Your task to perform on an android device: Open CNN.com Image 0: 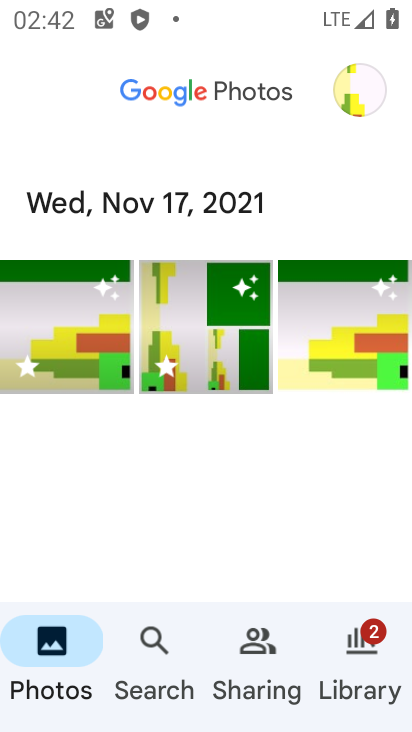
Step 0: press home button
Your task to perform on an android device: Open CNN.com Image 1: 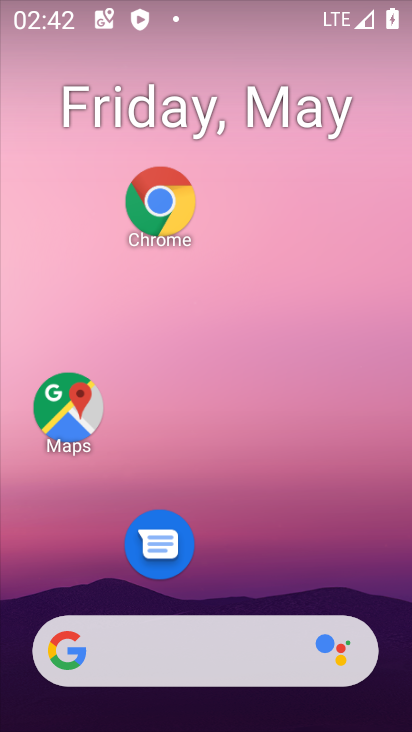
Step 1: drag from (300, 525) to (225, 158)
Your task to perform on an android device: Open CNN.com Image 2: 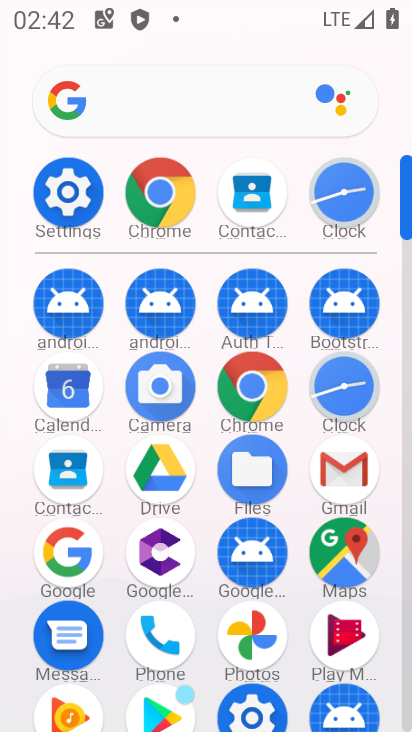
Step 2: click (248, 397)
Your task to perform on an android device: Open CNN.com Image 3: 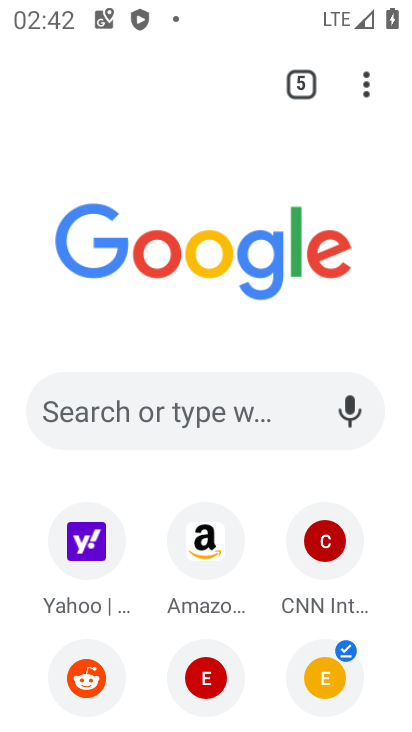
Step 3: drag from (160, 501) to (157, 381)
Your task to perform on an android device: Open CNN.com Image 4: 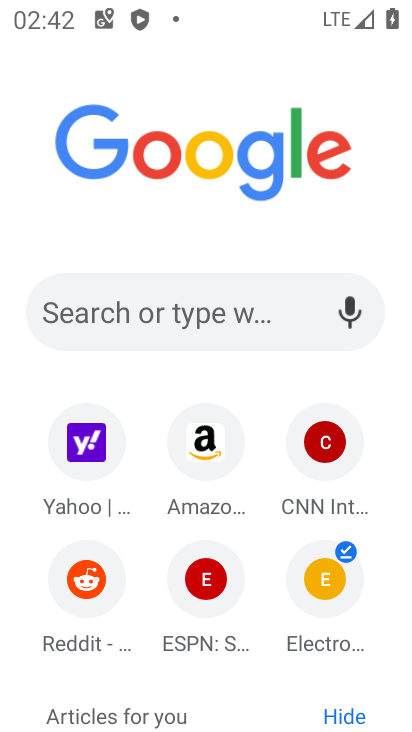
Step 4: click (178, 293)
Your task to perform on an android device: Open CNN.com Image 5: 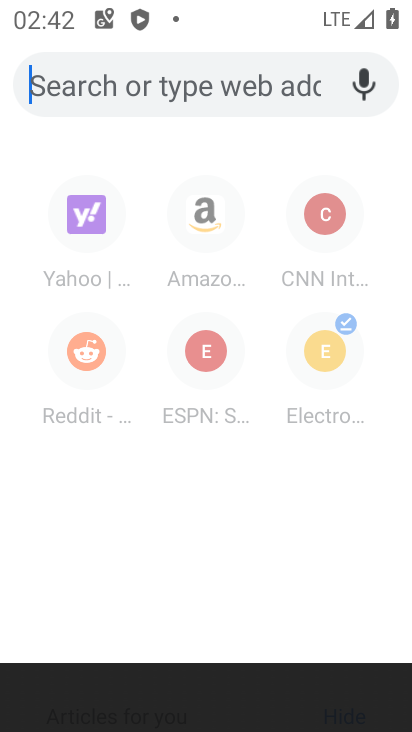
Step 5: click (136, 304)
Your task to perform on an android device: Open CNN.com Image 6: 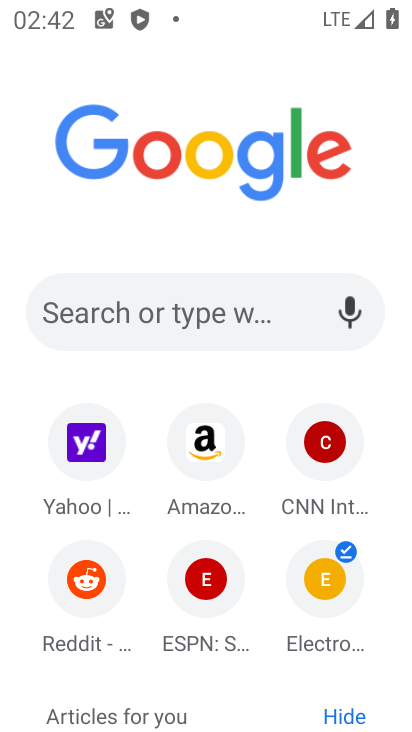
Step 6: click (184, 308)
Your task to perform on an android device: Open CNN.com Image 7: 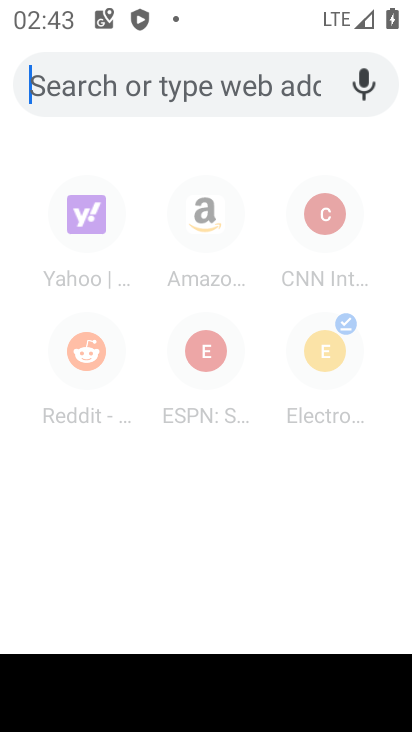
Step 7: type "cnn,com"
Your task to perform on an android device: Open CNN.com Image 8: 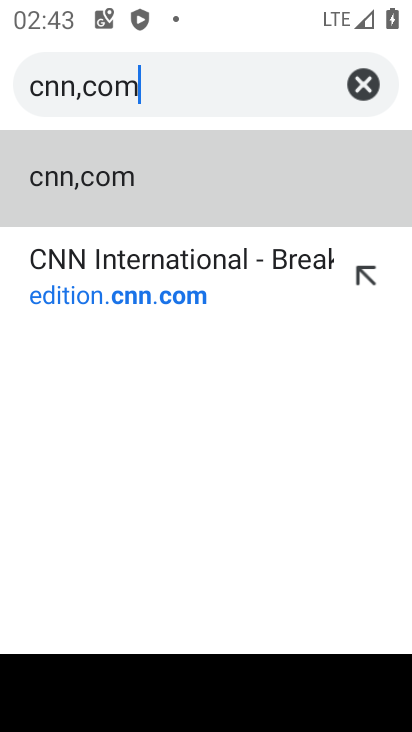
Step 8: type ""
Your task to perform on an android device: Open CNN.com Image 9: 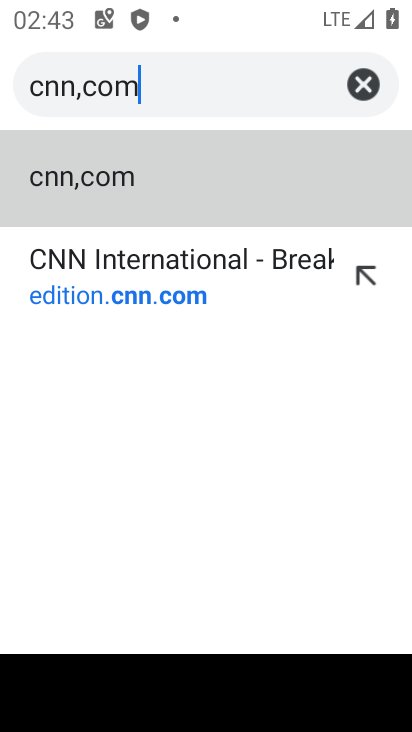
Step 9: click (157, 267)
Your task to perform on an android device: Open CNN.com Image 10: 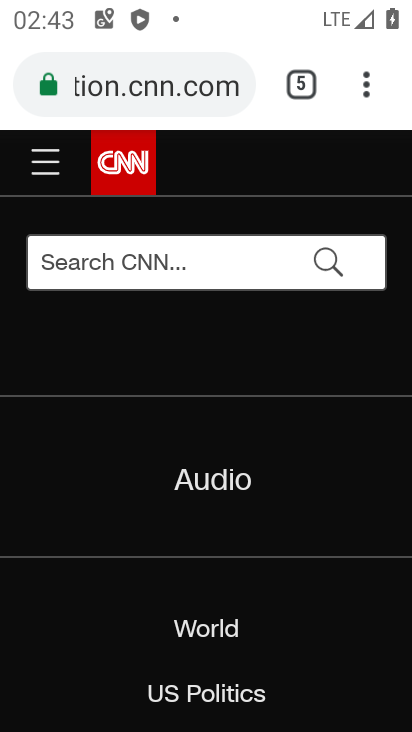
Step 10: task complete